Your task to perform on an android device: choose inbox layout in the gmail app Image 0: 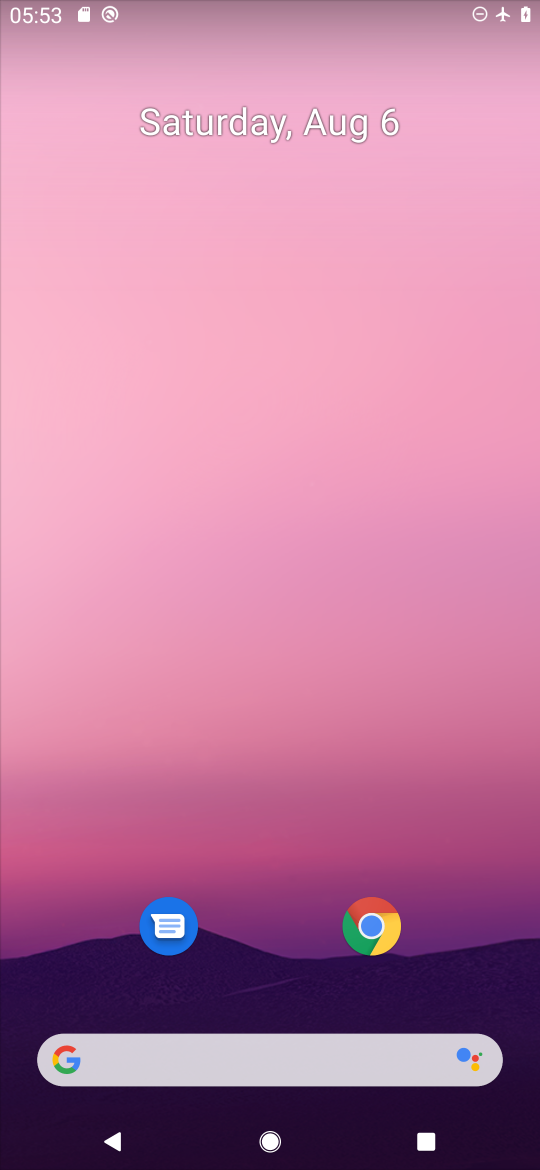
Step 0: drag from (274, 913) to (272, 327)
Your task to perform on an android device: choose inbox layout in the gmail app Image 1: 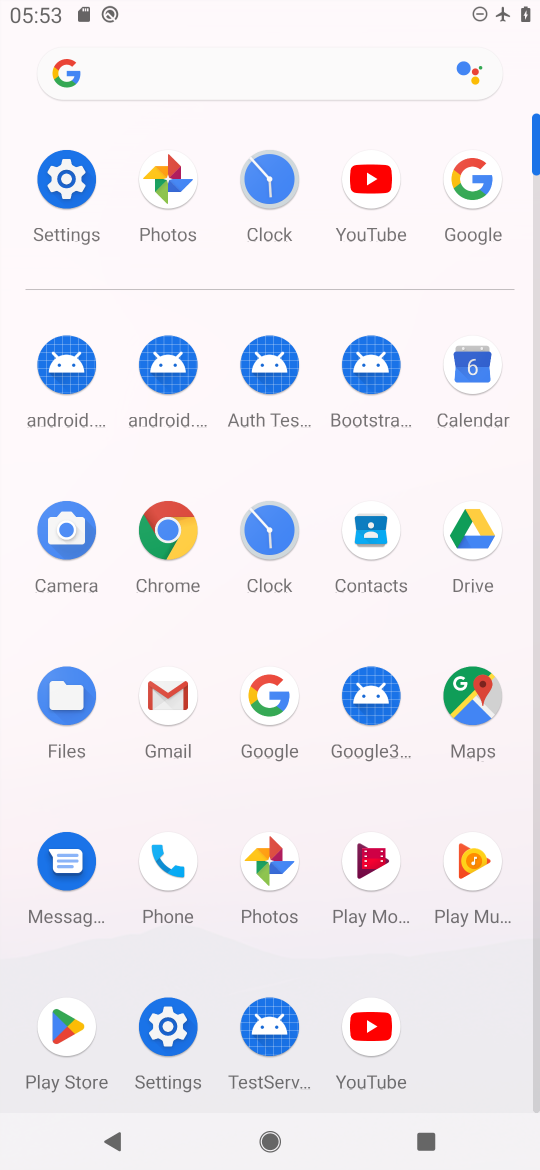
Step 1: click (188, 699)
Your task to perform on an android device: choose inbox layout in the gmail app Image 2: 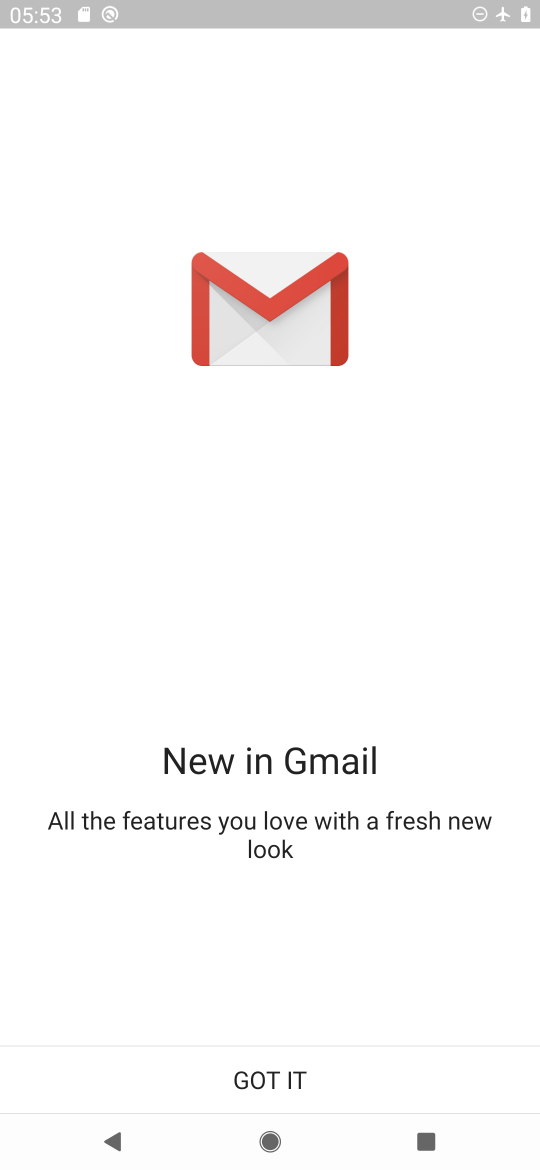
Step 2: click (267, 1064)
Your task to perform on an android device: choose inbox layout in the gmail app Image 3: 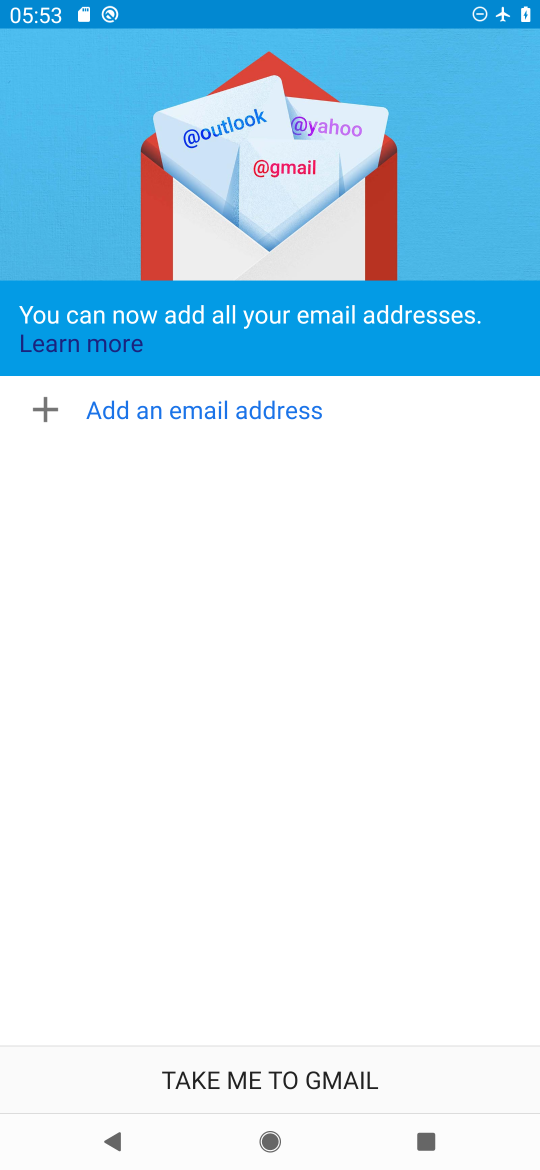
Step 3: click (283, 1056)
Your task to perform on an android device: choose inbox layout in the gmail app Image 4: 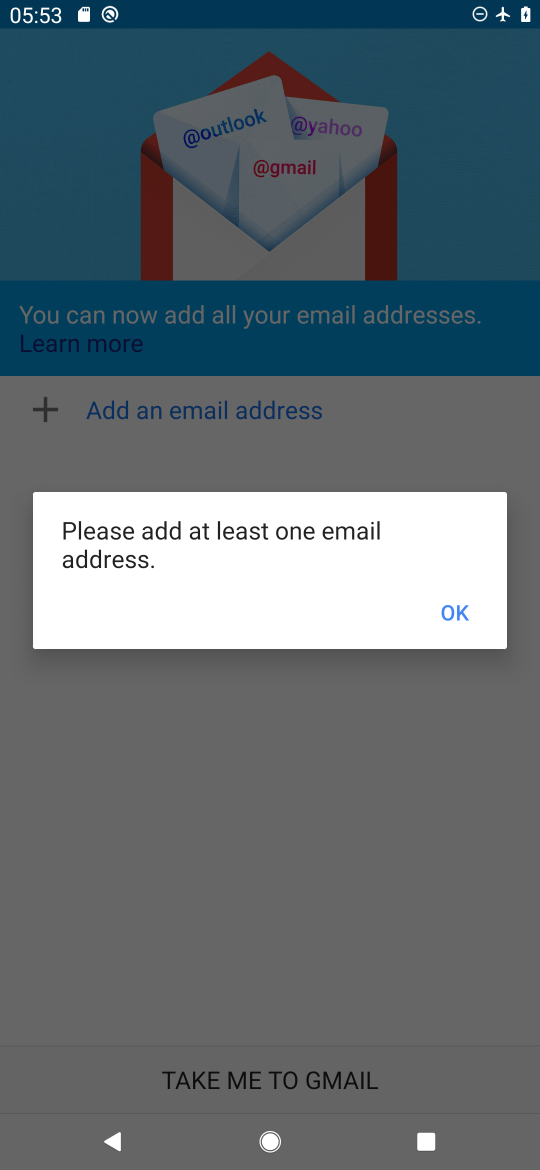
Step 4: task complete